Your task to perform on an android device: Open Google Maps Image 0: 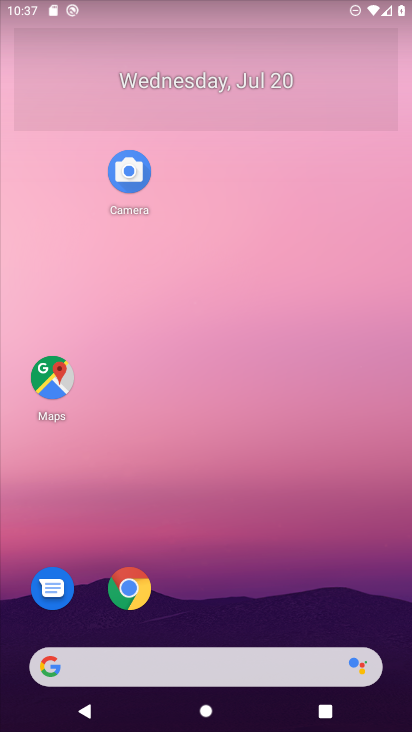
Step 0: click (46, 385)
Your task to perform on an android device: Open Google Maps Image 1: 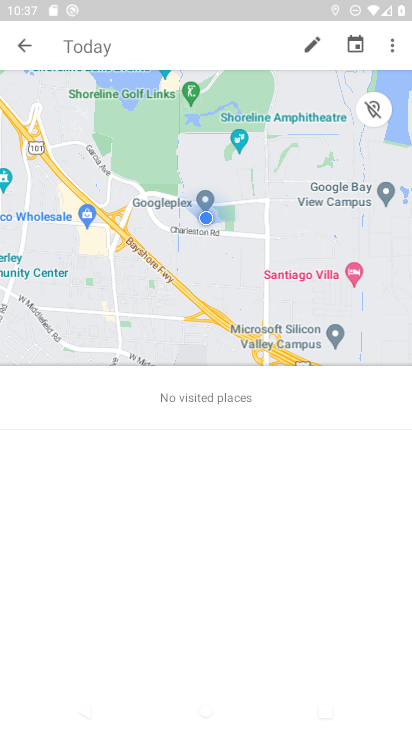
Step 1: click (15, 44)
Your task to perform on an android device: Open Google Maps Image 2: 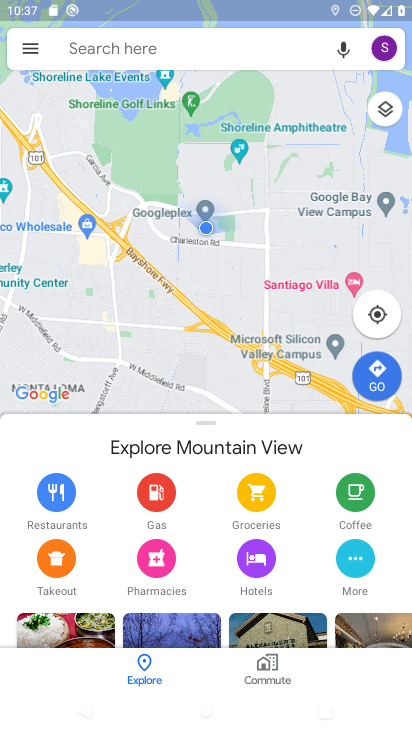
Step 2: task complete